Your task to perform on an android device: Nike Air Max 2020 shoes on Nike.com Image 0: 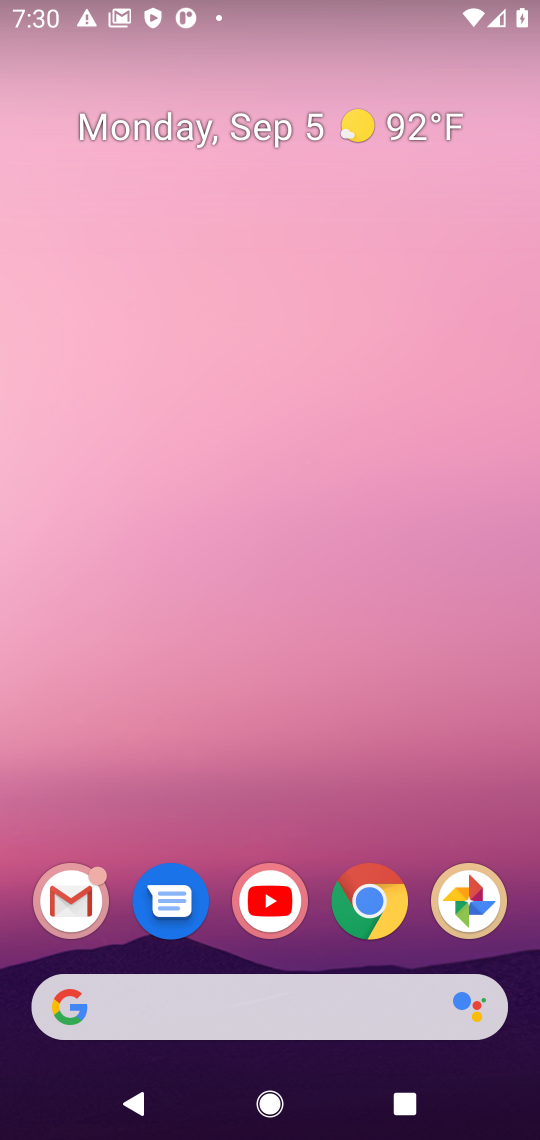
Step 0: click (379, 923)
Your task to perform on an android device: Nike Air Max 2020 shoes on Nike.com Image 1: 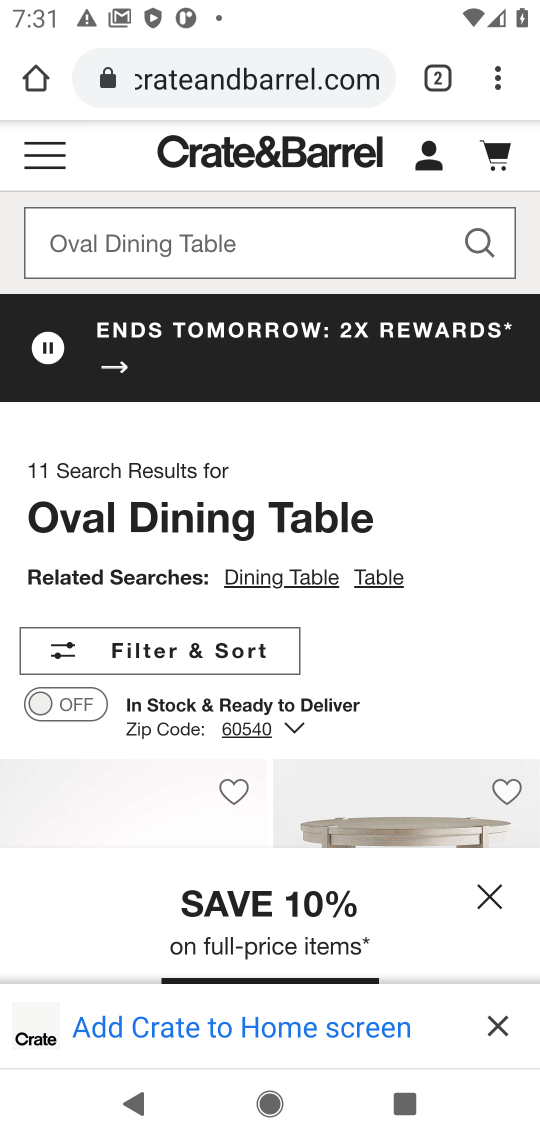
Step 1: click (290, 75)
Your task to perform on an android device: Nike Air Max 2020 shoes on Nike.com Image 2: 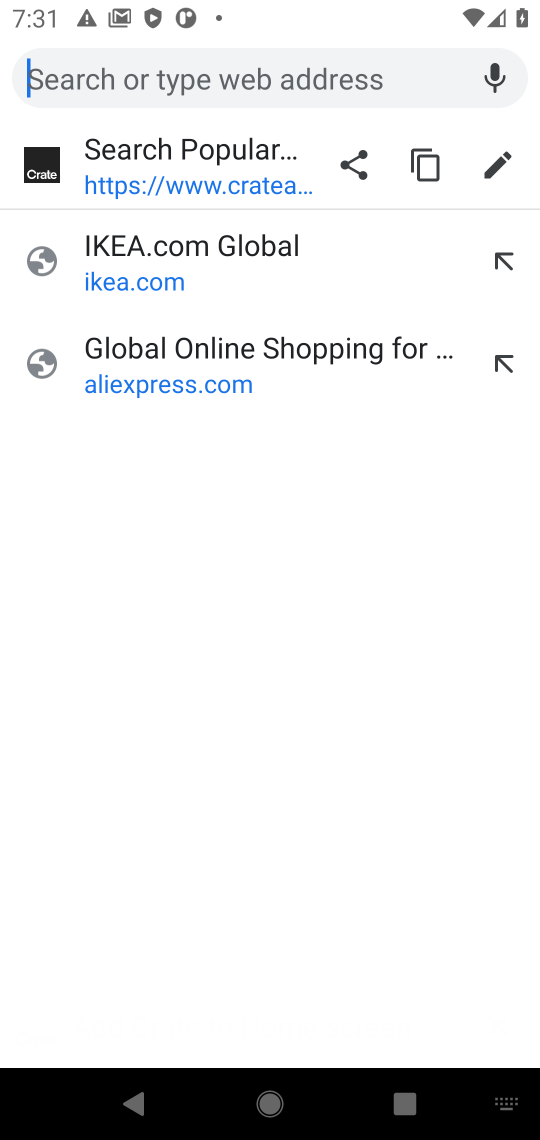
Step 2: type "nikke.com"
Your task to perform on an android device: Nike Air Max 2020 shoes on Nike.com Image 3: 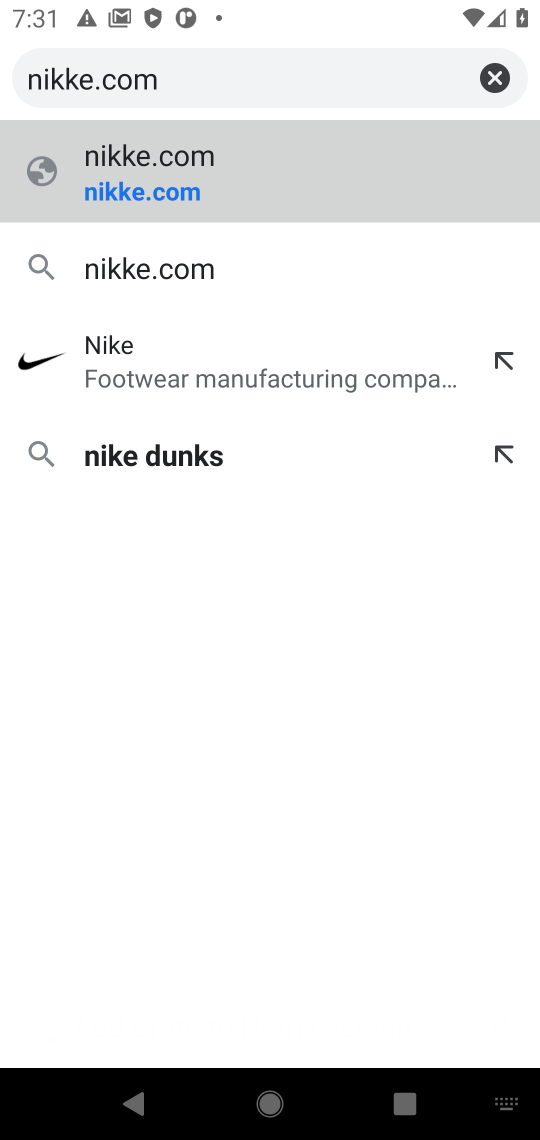
Step 3: click (234, 170)
Your task to perform on an android device: Nike Air Max 2020 shoes on Nike.com Image 4: 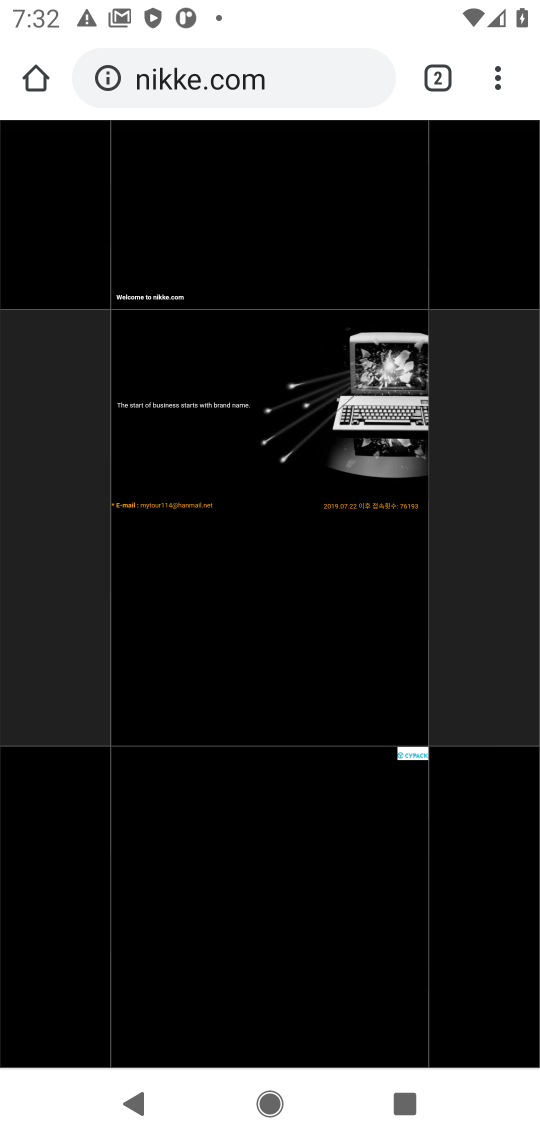
Step 4: task complete